Your task to perform on an android device: turn notification dots off Image 0: 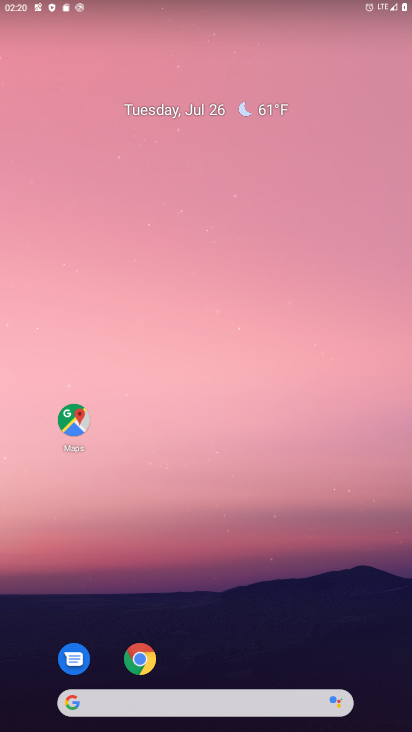
Step 0: drag from (293, 597) to (295, 12)
Your task to perform on an android device: turn notification dots off Image 1: 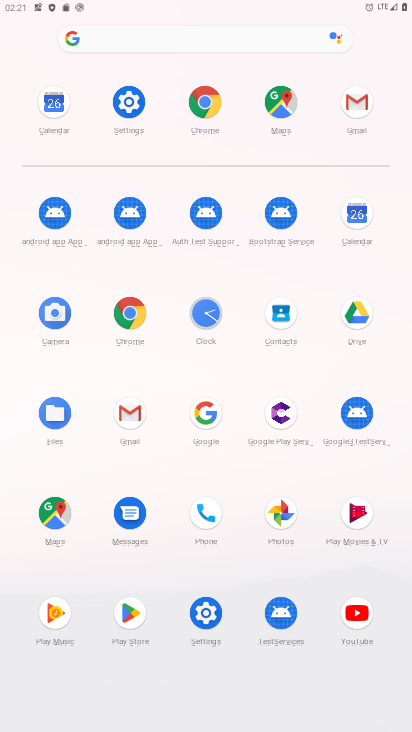
Step 1: click (130, 100)
Your task to perform on an android device: turn notification dots off Image 2: 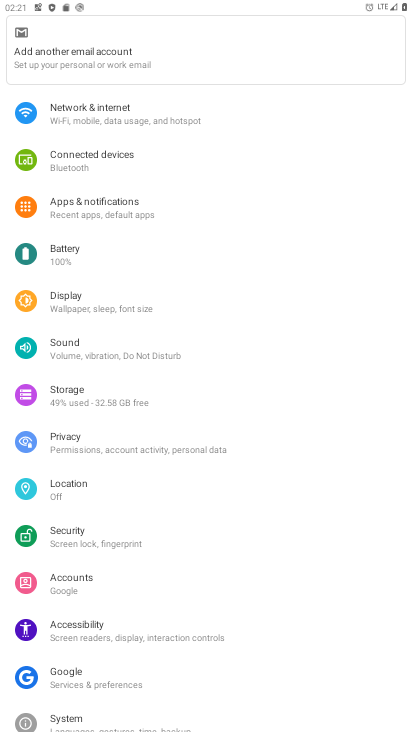
Step 2: click (135, 202)
Your task to perform on an android device: turn notification dots off Image 3: 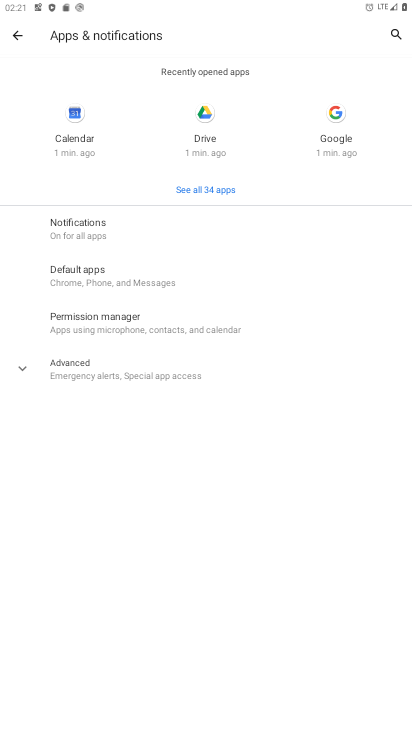
Step 3: click (96, 369)
Your task to perform on an android device: turn notification dots off Image 4: 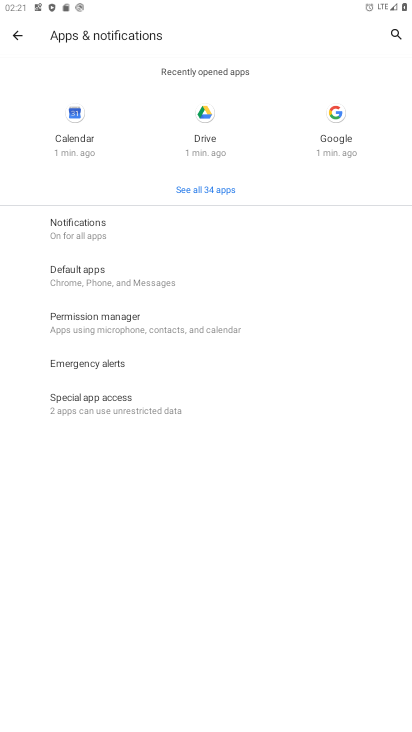
Step 4: click (105, 229)
Your task to perform on an android device: turn notification dots off Image 5: 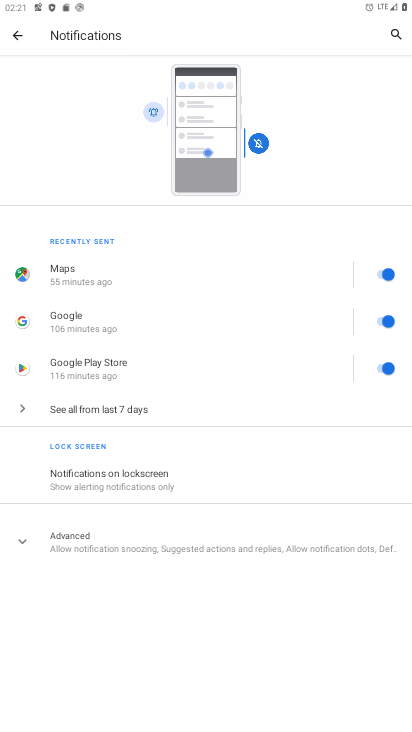
Step 5: click (135, 552)
Your task to perform on an android device: turn notification dots off Image 6: 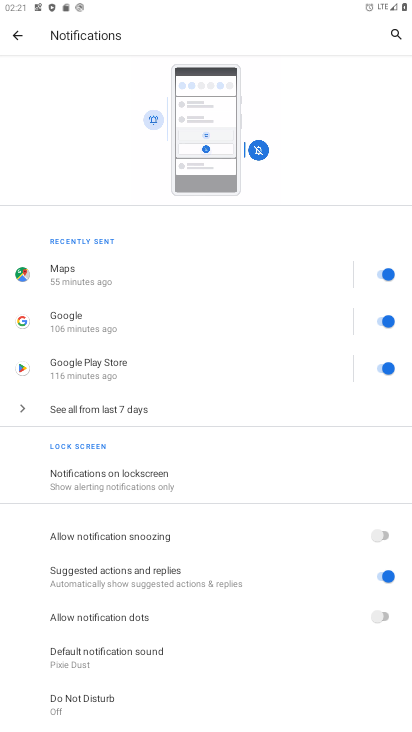
Step 6: task complete